Your task to perform on an android device: Go to eBay Image 0: 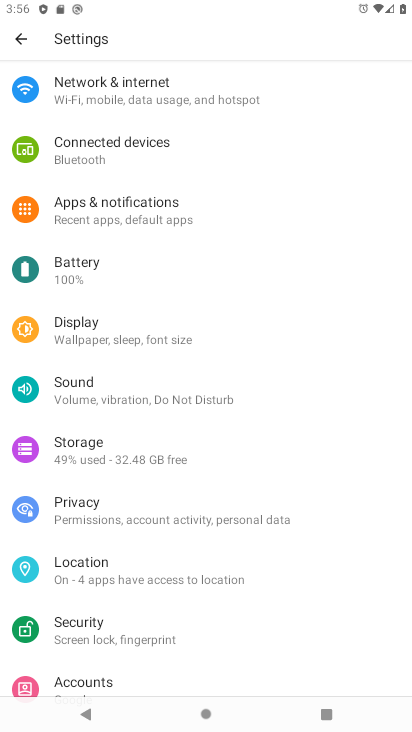
Step 0: drag from (361, 336) to (360, 457)
Your task to perform on an android device: Go to eBay Image 1: 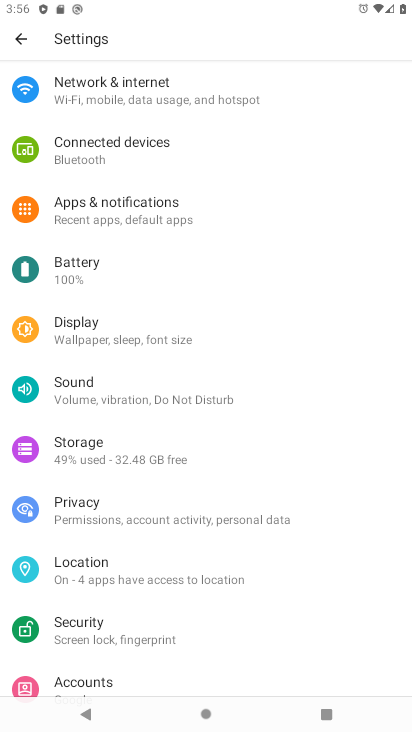
Step 1: press back button
Your task to perform on an android device: Go to eBay Image 2: 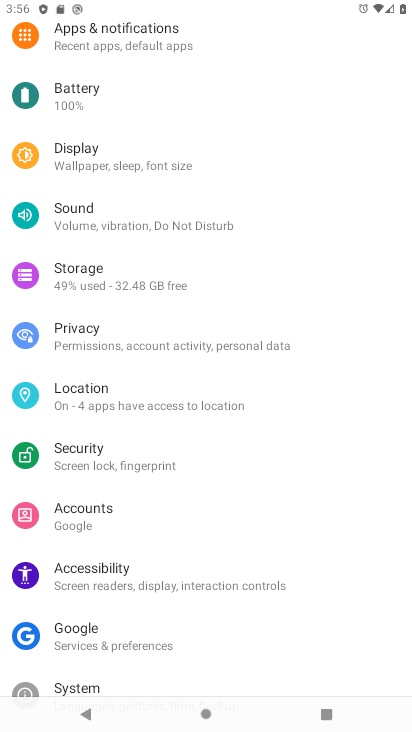
Step 2: press back button
Your task to perform on an android device: Go to eBay Image 3: 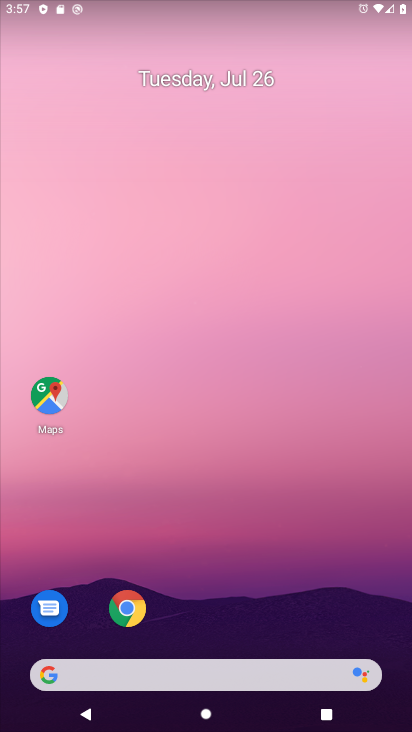
Step 3: click (124, 607)
Your task to perform on an android device: Go to eBay Image 4: 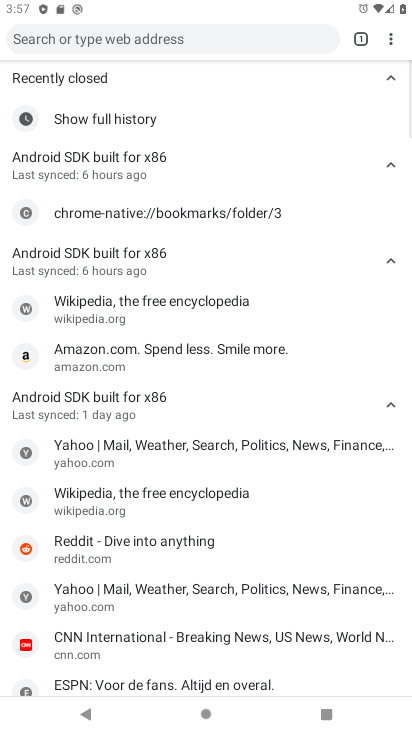
Step 4: click (217, 34)
Your task to perform on an android device: Go to eBay Image 5: 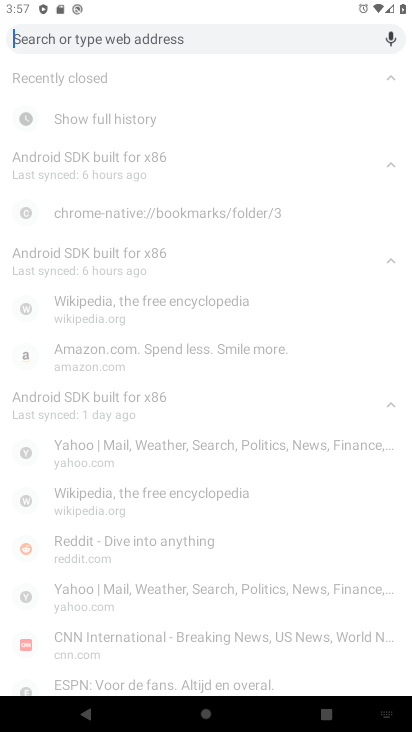
Step 5: type "eBay"
Your task to perform on an android device: Go to eBay Image 6: 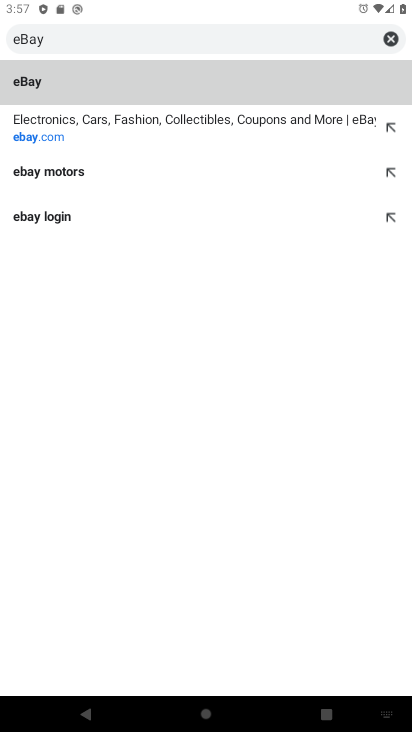
Step 6: click (34, 84)
Your task to perform on an android device: Go to eBay Image 7: 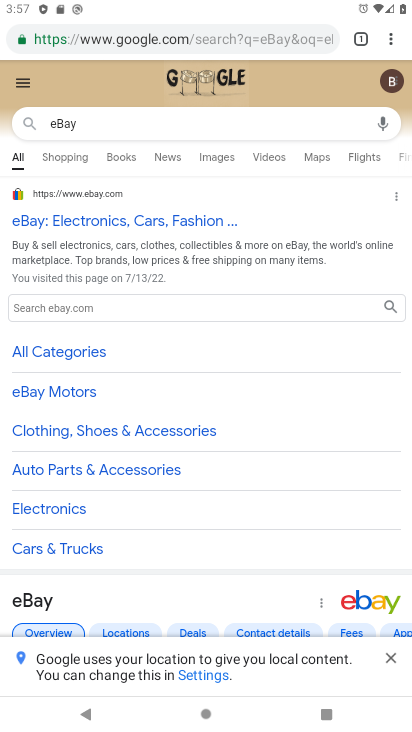
Step 7: task complete